Your task to perform on an android device: open a new tab in the chrome app Image 0: 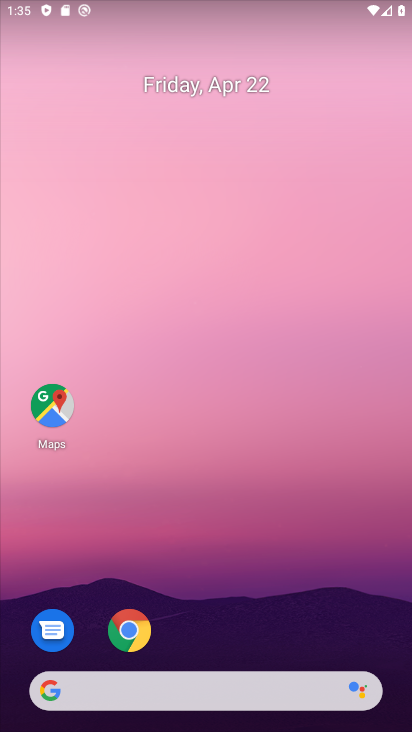
Step 0: drag from (317, 636) to (185, 237)
Your task to perform on an android device: open a new tab in the chrome app Image 1: 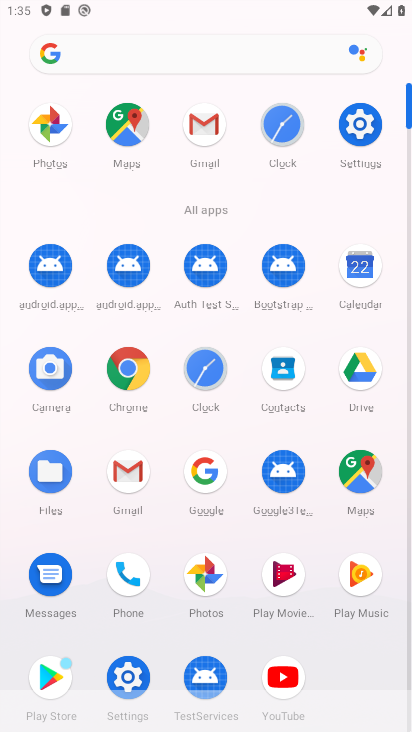
Step 1: drag from (365, 222) to (373, 156)
Your task to perform on an android device: open a new tab in the chrome app Image 2: 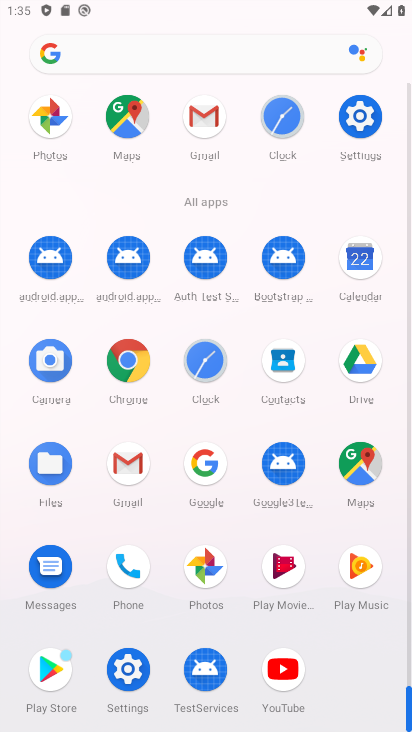
Step 2: click (126, 364)
Your task to perform on an android device: open a new tab in the chrome app Image 3: 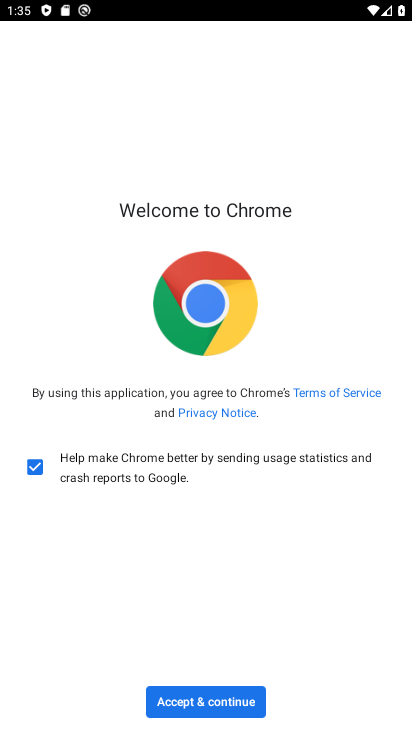
Step 3: click (225, 696)
Your task to perform on an android device: open a new tab in the chrome app Image 4: 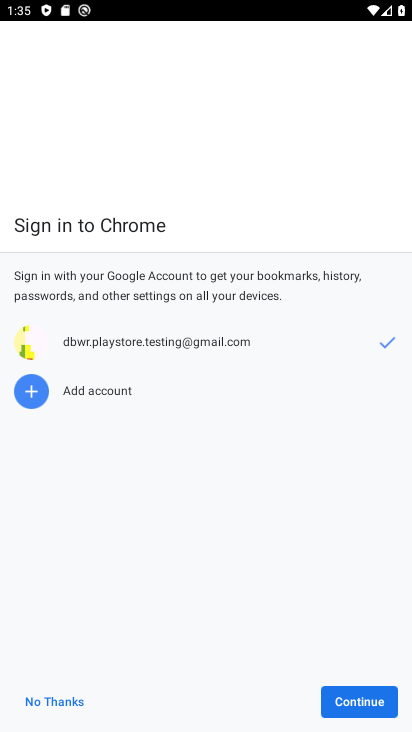
Step 4: click (360, 695)
Your task to perform on an android device: open a new tab in the chrome app Image 5: 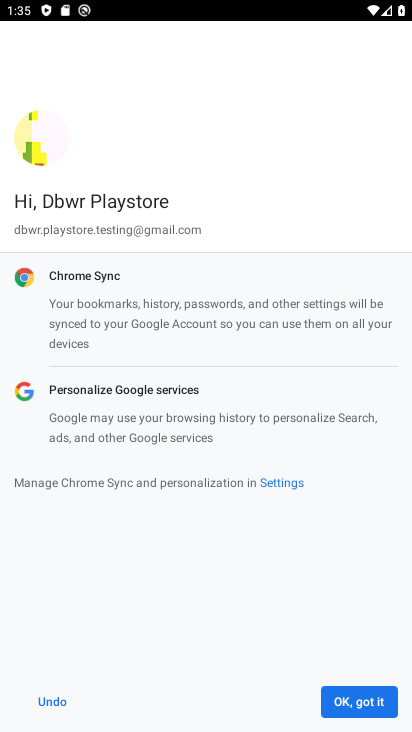
Step 5: click (360, 696)
Your task to perform on an android device: open a new tab in the chrome app Image 6: 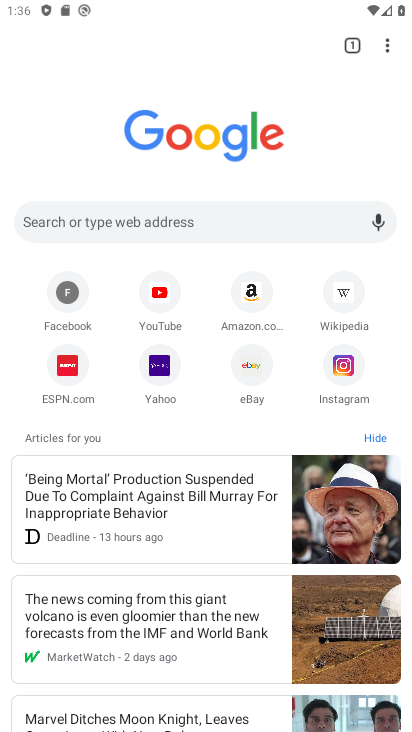
Step 6: click (383, 41)
Your task to perform on an android device: open a new tab in the chrome app Image 7: 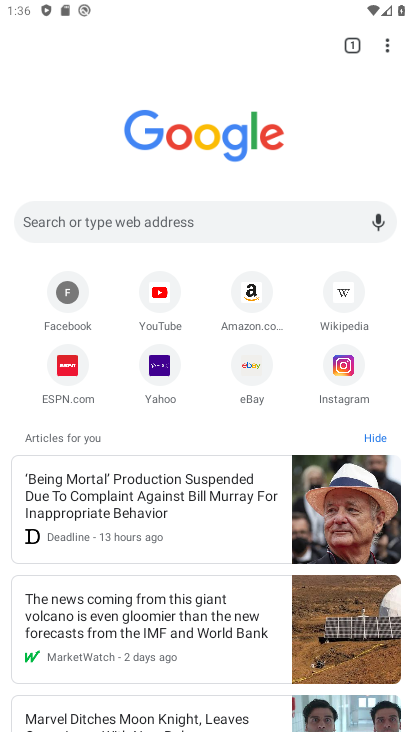
Step 7: click (386, 43)
Your task to perform on an android device: open a new tab in the chrome app Image 8: 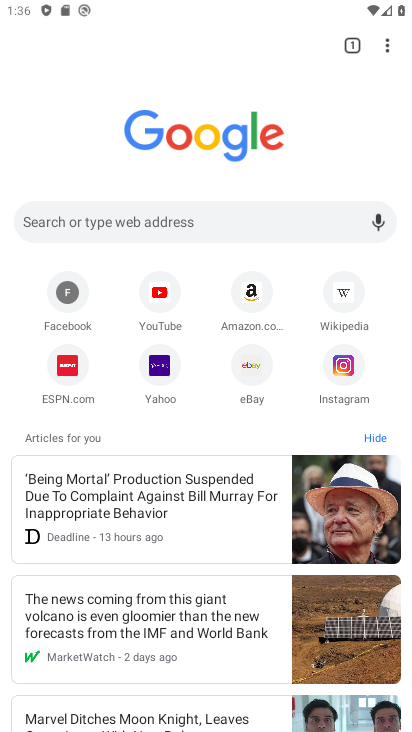
Step 8: click (386, 43)
Your task to perform on an android device: open a new tab in the chrome app Image 9: 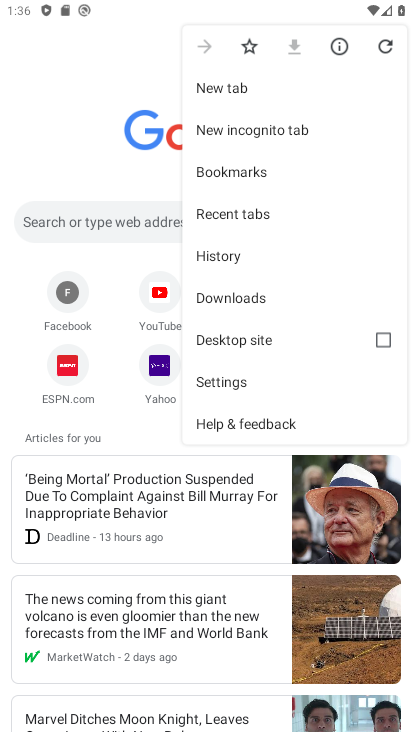
Step 9: click (229, 376)
Your task to perform on an android device: open a new tab in the chrome app Image 10: 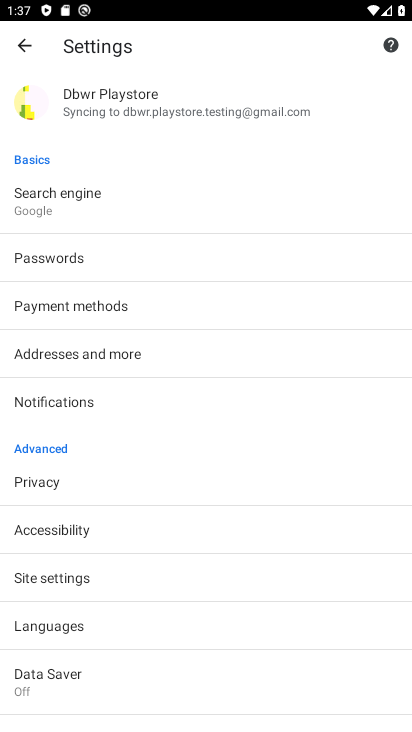
Step 10: click (19, 45)
Your task to perform on an android device: open a new tab in the chrome app Image 11: 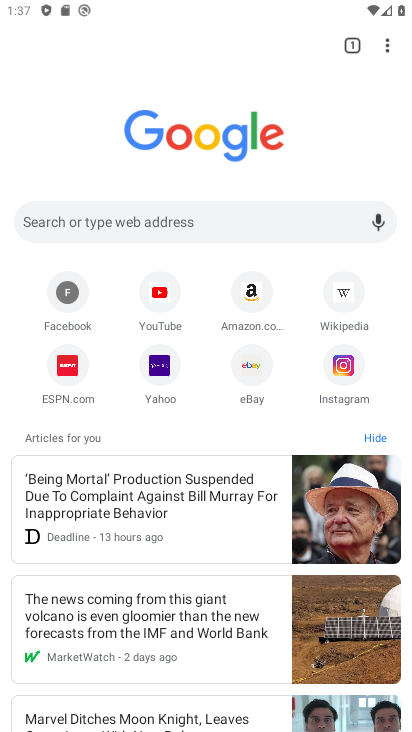
Step 11: click (385, 41)
Your task to perform on an android device: open a new tab in the chrome app Image 12: 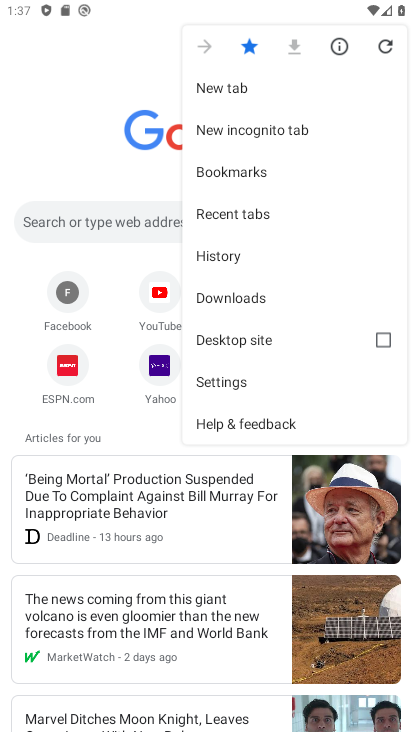
Step 12: click (203, 83)
Your task to perform on an android device: open a new tab in the chrome app Image 13: 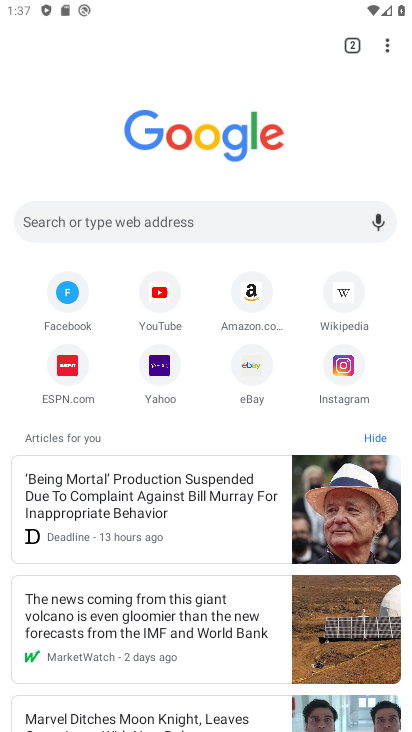
Step 13: task complete